Your task to perform on an android device: What's the weather going to be tomorrow? Image 0: 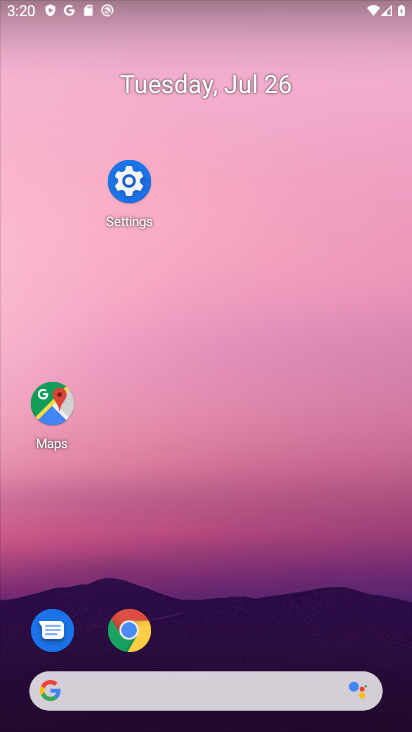
Step 0: drag from (165, 581) to (157, 198)
Your task to perform on an android device: What's the weather going to be tomorrow? Image 1: 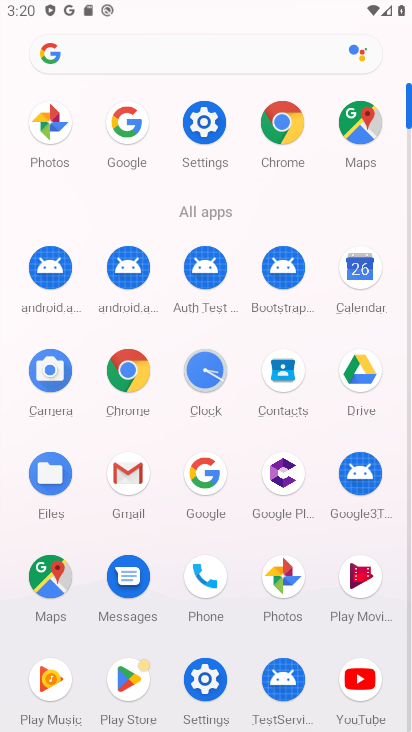
Step 1: drag from (131, 113) to (57, 244)
Your task to perform on an android device: What's the weather going to be tomorrow? Image 2: 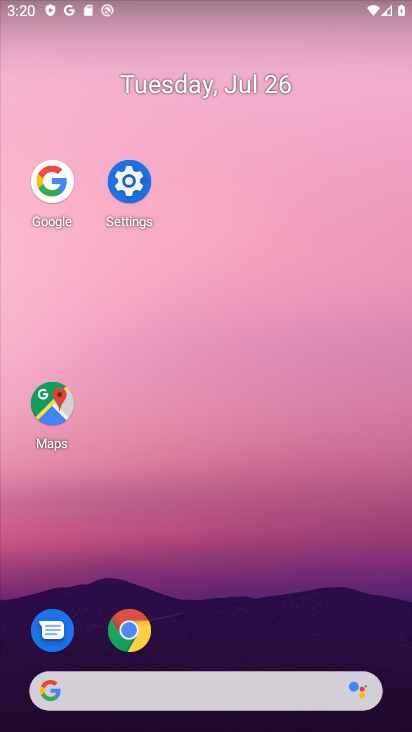
Step 2: click (50, 177)
Your task to perform on an android device: What's the weather going to be tomorrow? Image 3: 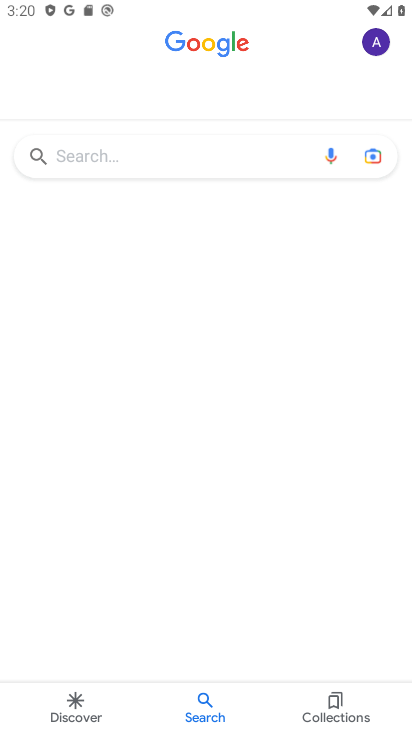
Step 3: click (188, 154)
Your task to perform on an android device: What's the weather going to be tomorrow? Image 4: 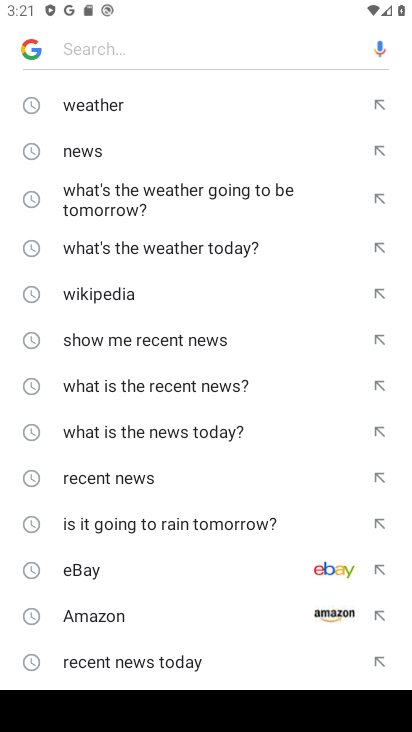
Step 4: click (144, 110)
Your task to perform on an android device: What's the weather going to be tomorrow? Image 5: 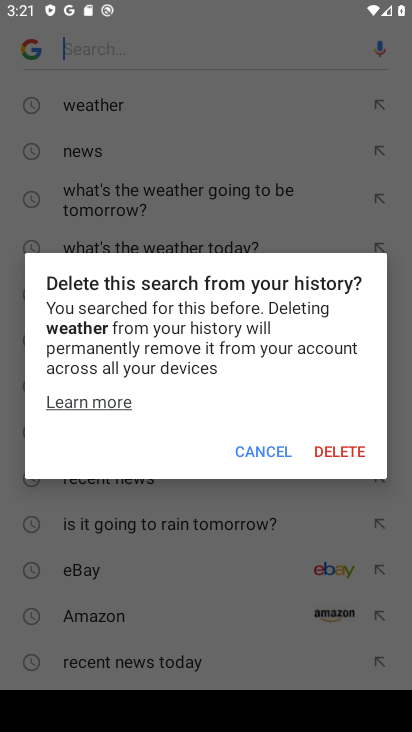
Step 5: click (275, 452)
Your task to perform on an android device: What's the weather going to be tomorrow? Image 6: 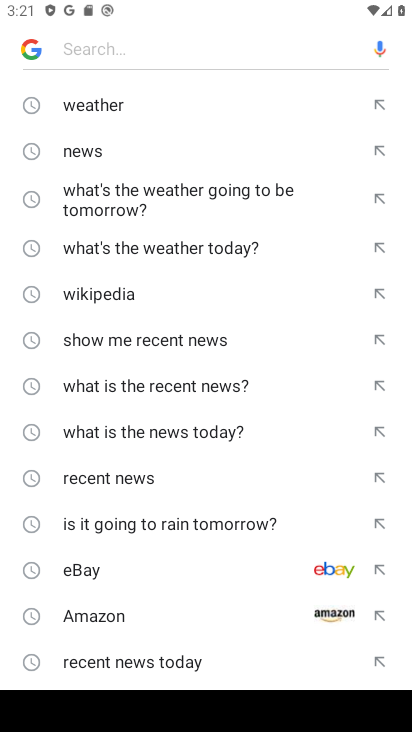
Step 6: click (154, 113)
Your task to perform on an android device: What's the weather going to be tomorrow? Image 7: 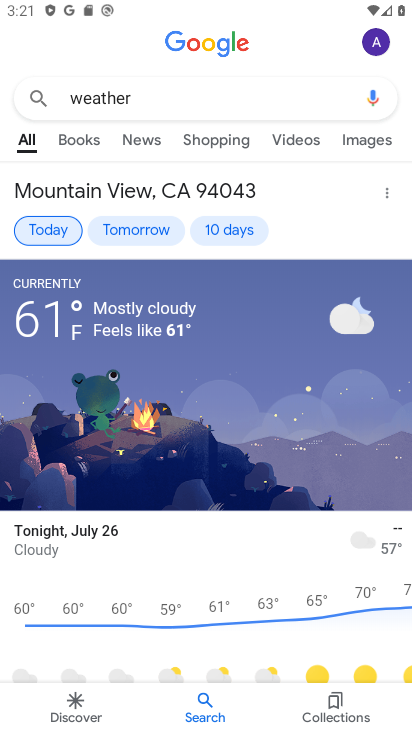
Step 7: click (207, 222)
Your task to perform on an android device: What's the weather going to be tomorrow? Image 8: 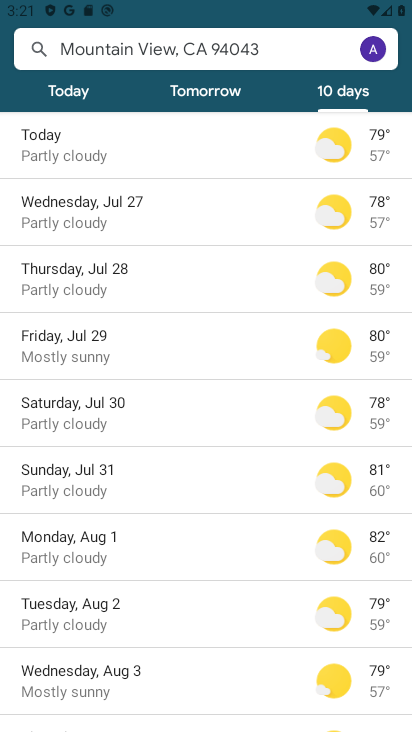
Step 8: click (102, 413)
Your task to perform on an android device: What's the weather going to be tomorrow? Image 9: 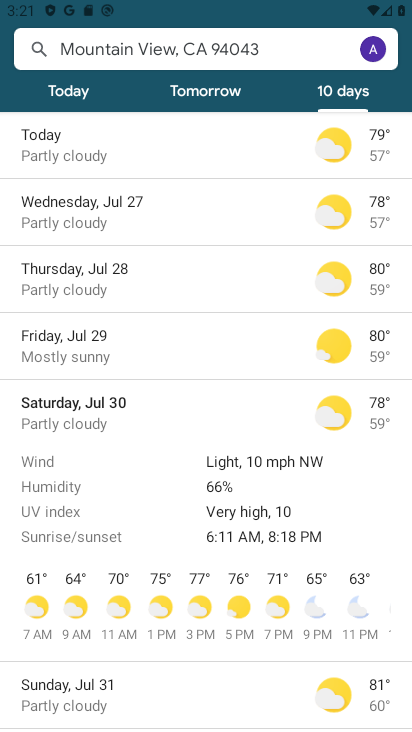
Step 9: task complete